Your task to perform on an android device: open app "Google Drive" Image 0: 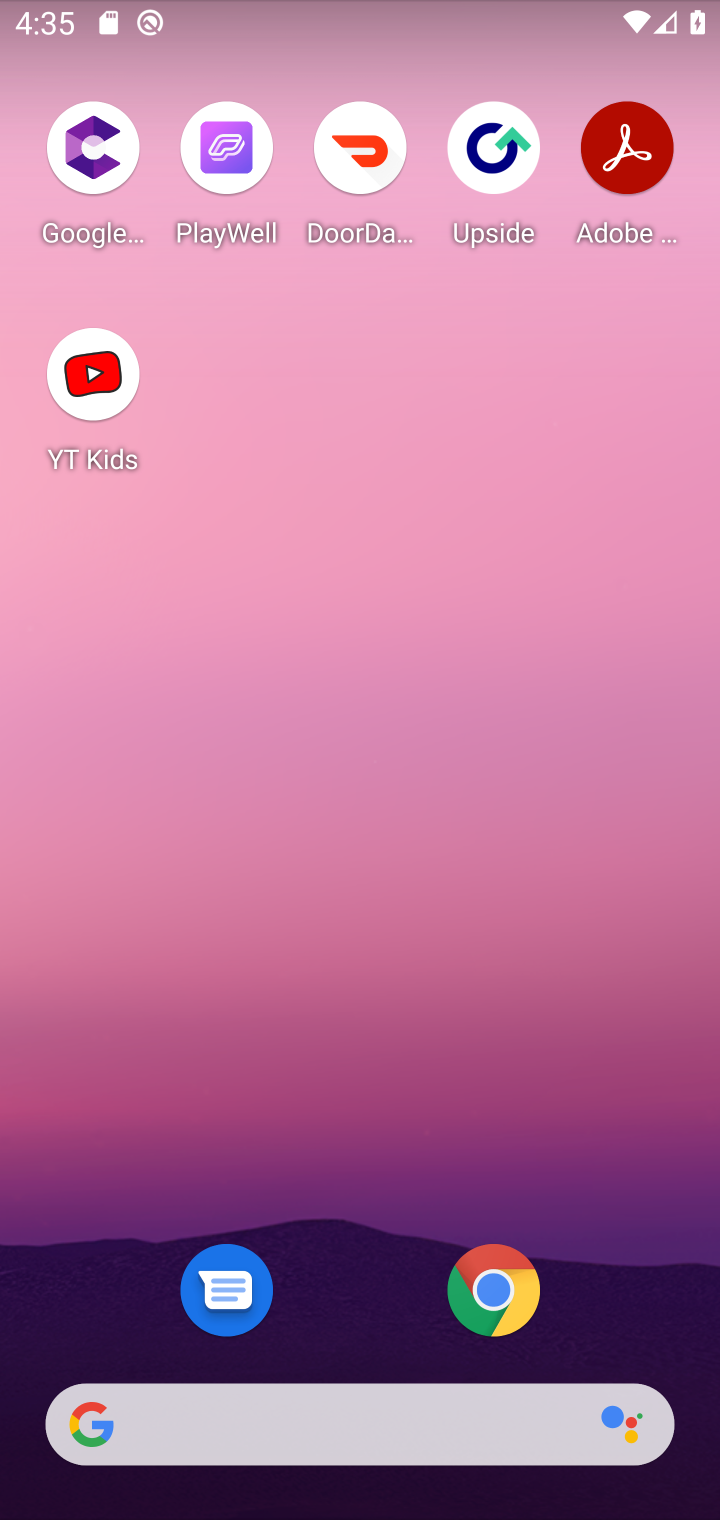
Step 0: drag from (474, 1428) to (678, 117)
Your task to perform on an android device: open app "Google Drive" Image 1: 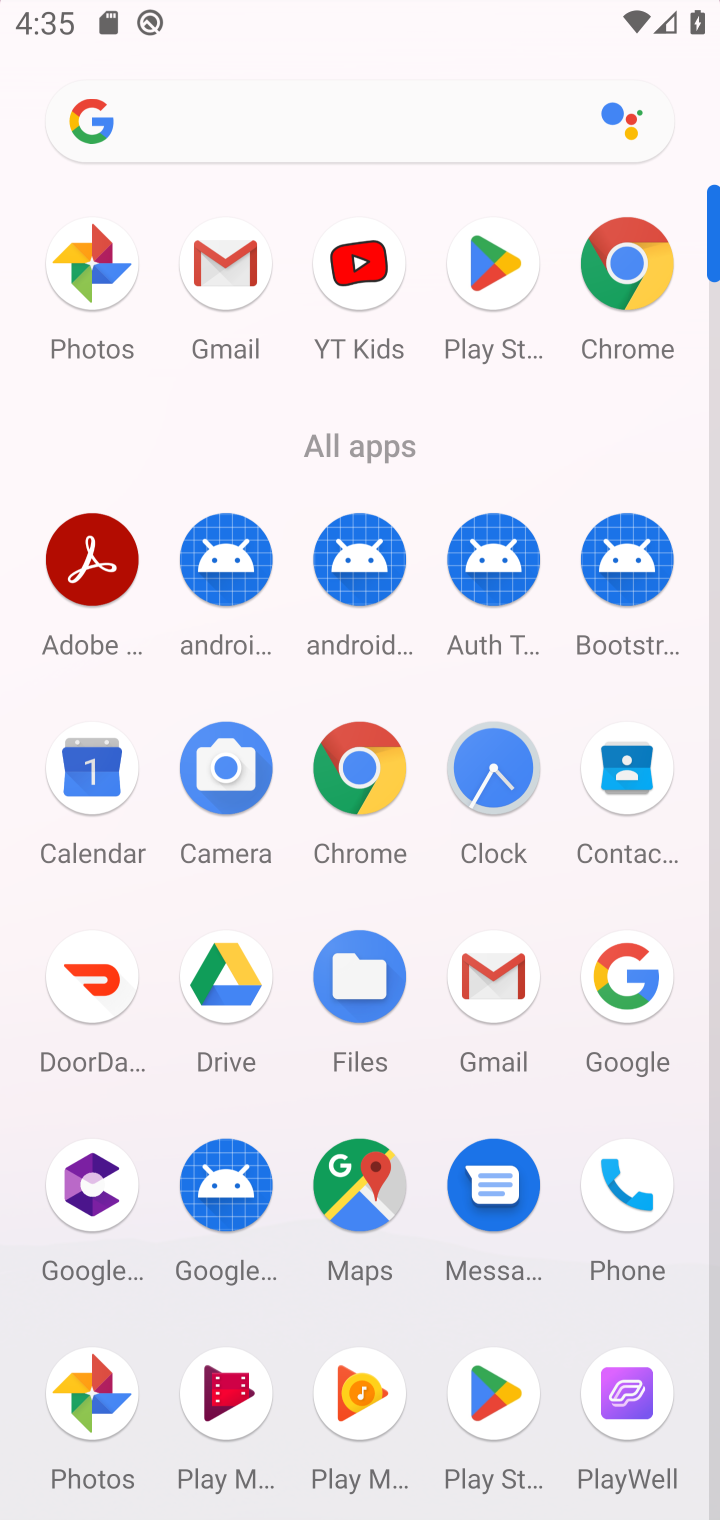
Step 1: click (498, 277)
Your task to perform on an android device: open app "Google Drive" Image 2: 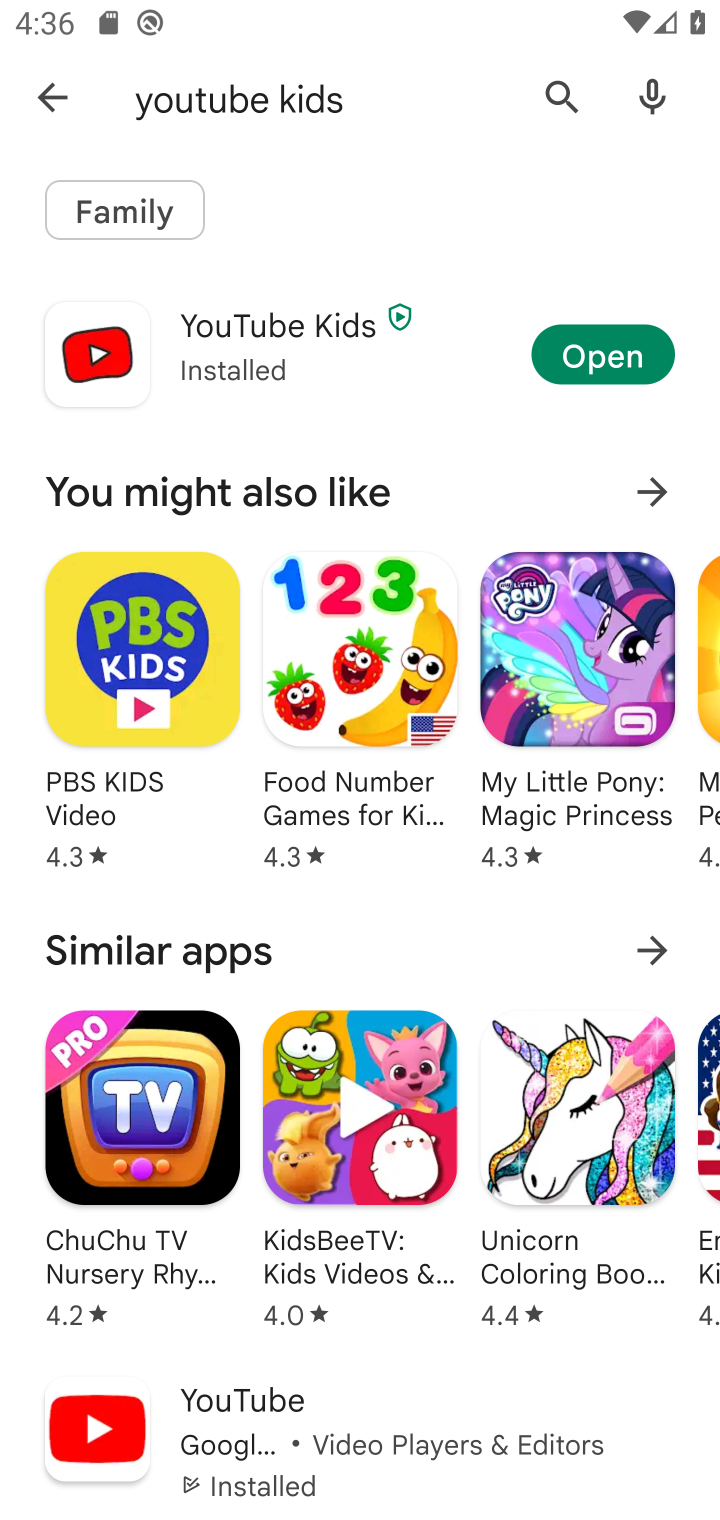
Step 2: click (557, 99)
Your task to perform on an android device: open app "Google Drive" Image 3: 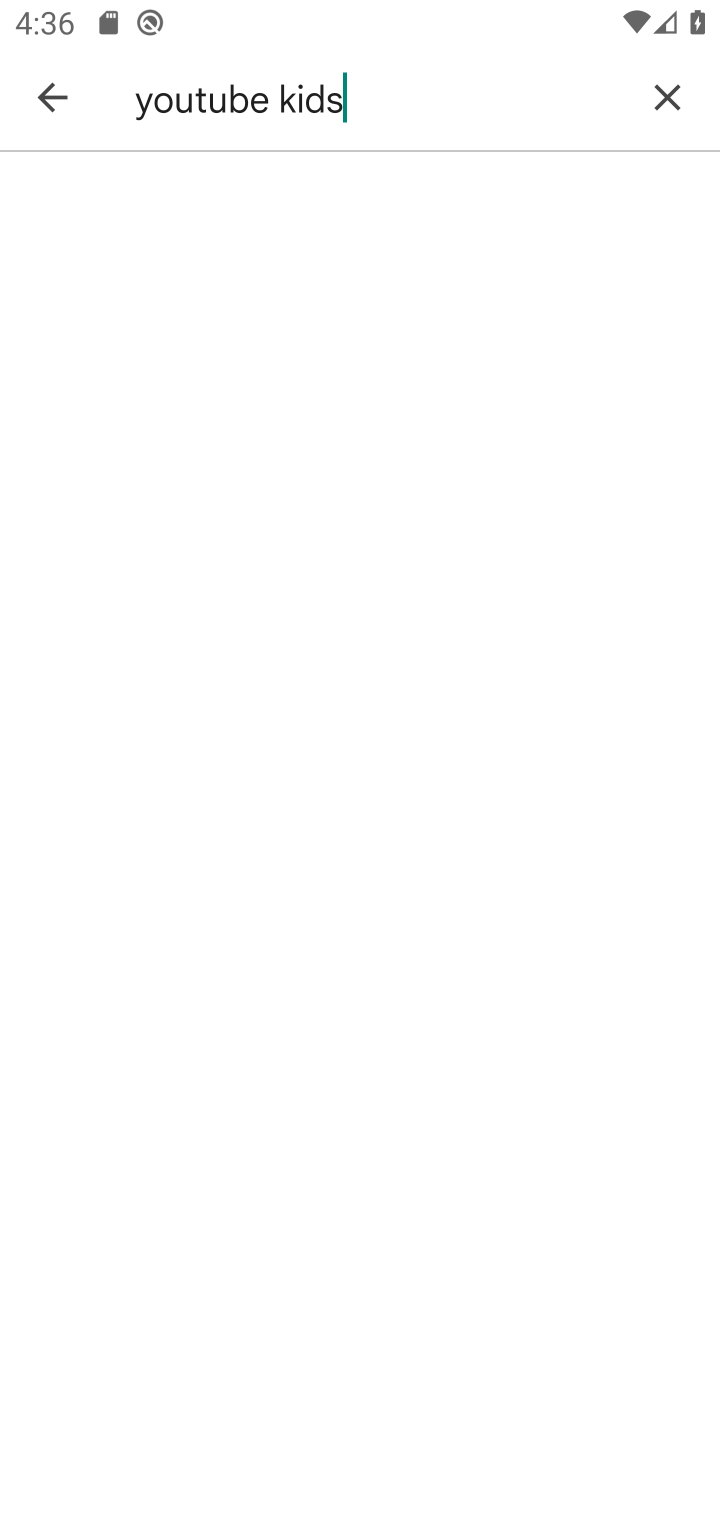
Step 3: click (557, 99)
Your task to perform on an android device: open app "Google Drive" Image 4: 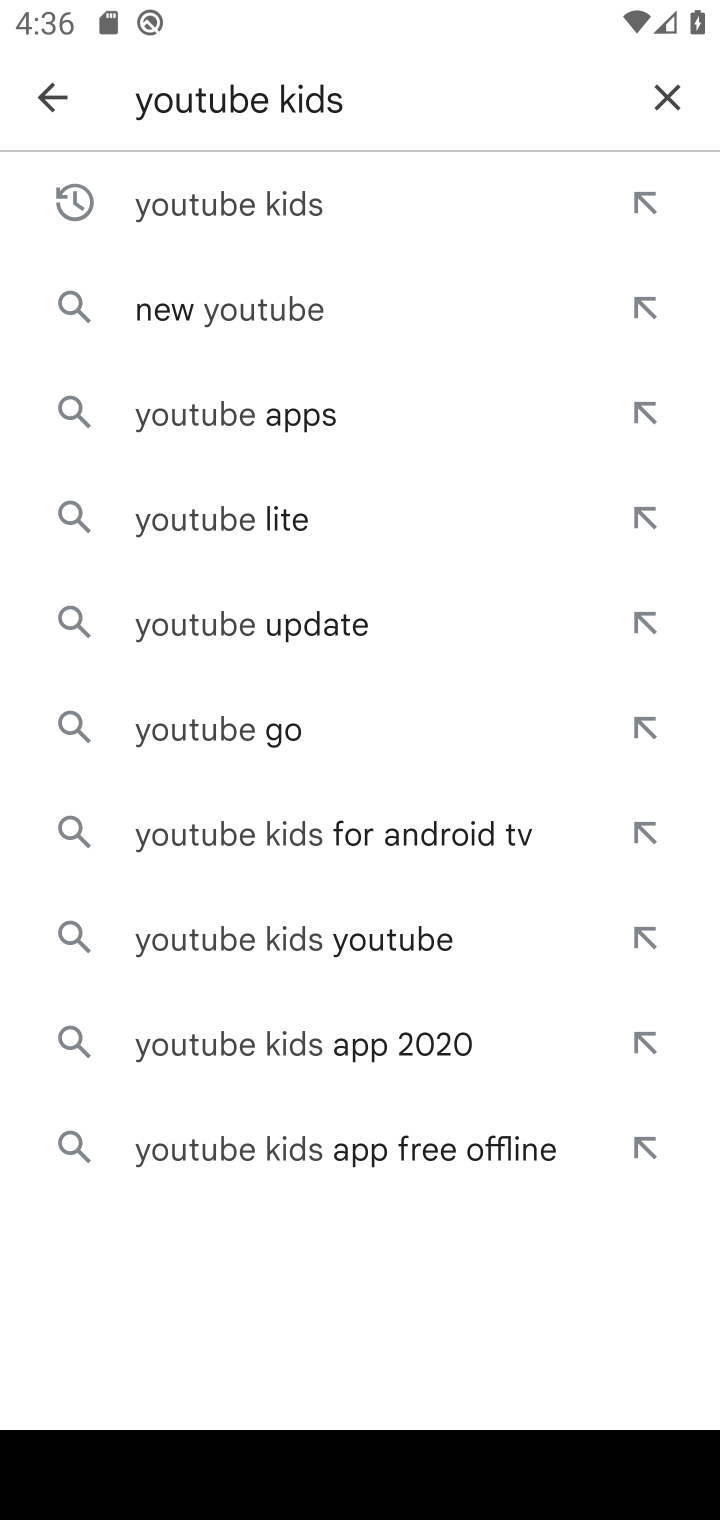
Step 4: click (679, 96)
Your task to perform on an android device: open app "Google Drive" Image 5: 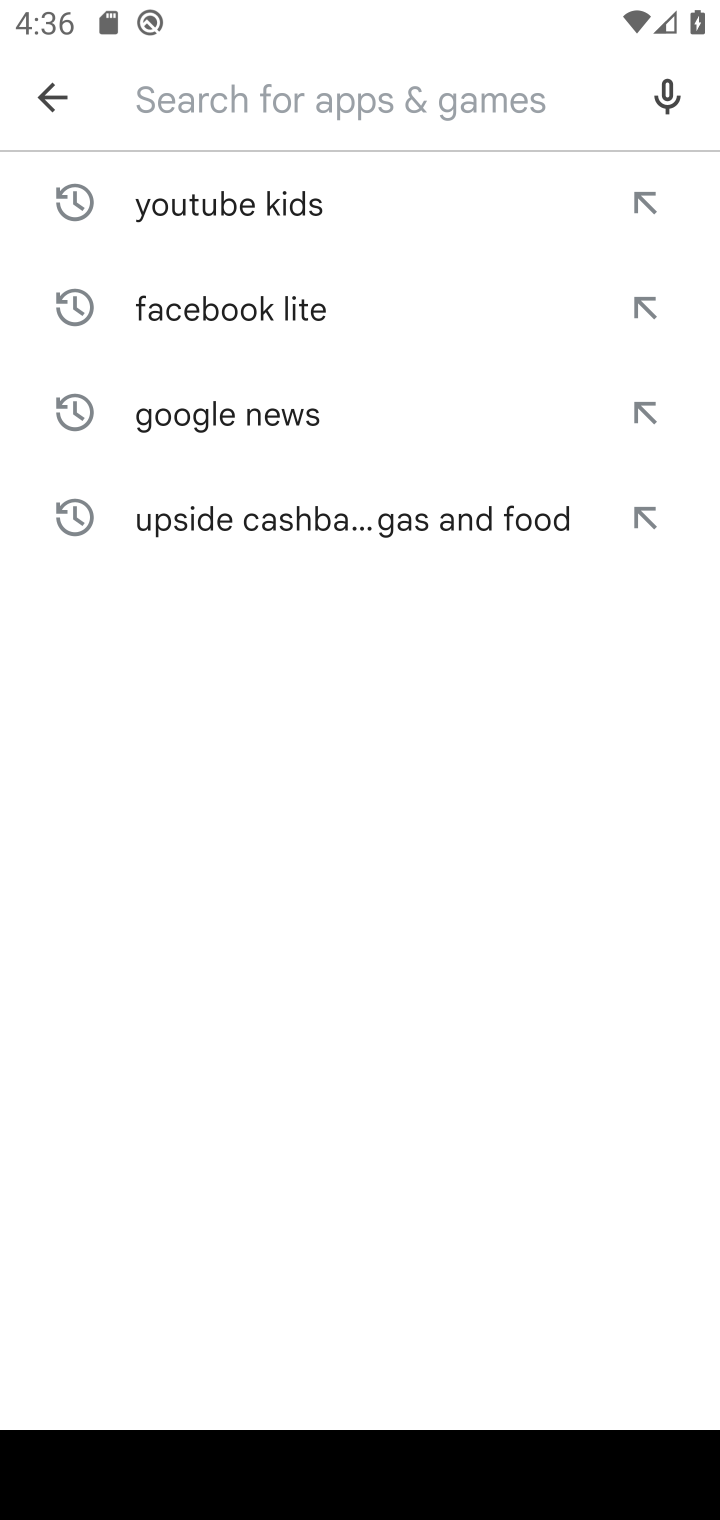
Step 5: type "Google drive"
Your task to perform on an android device: open app "Google Drive" Image 6: 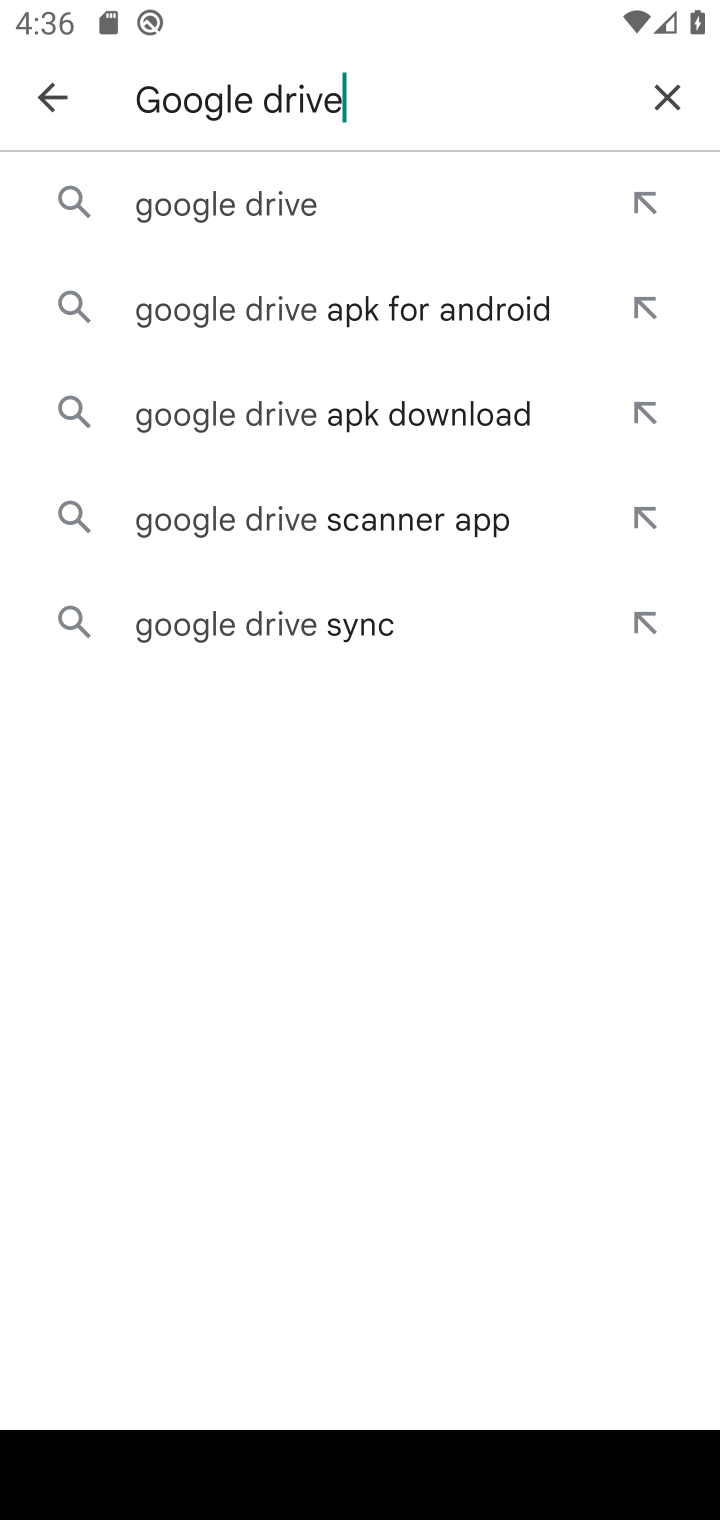
Step 6: click (363, 228)
Your task to perform on an android device: open app "Google Drive" Image 7: 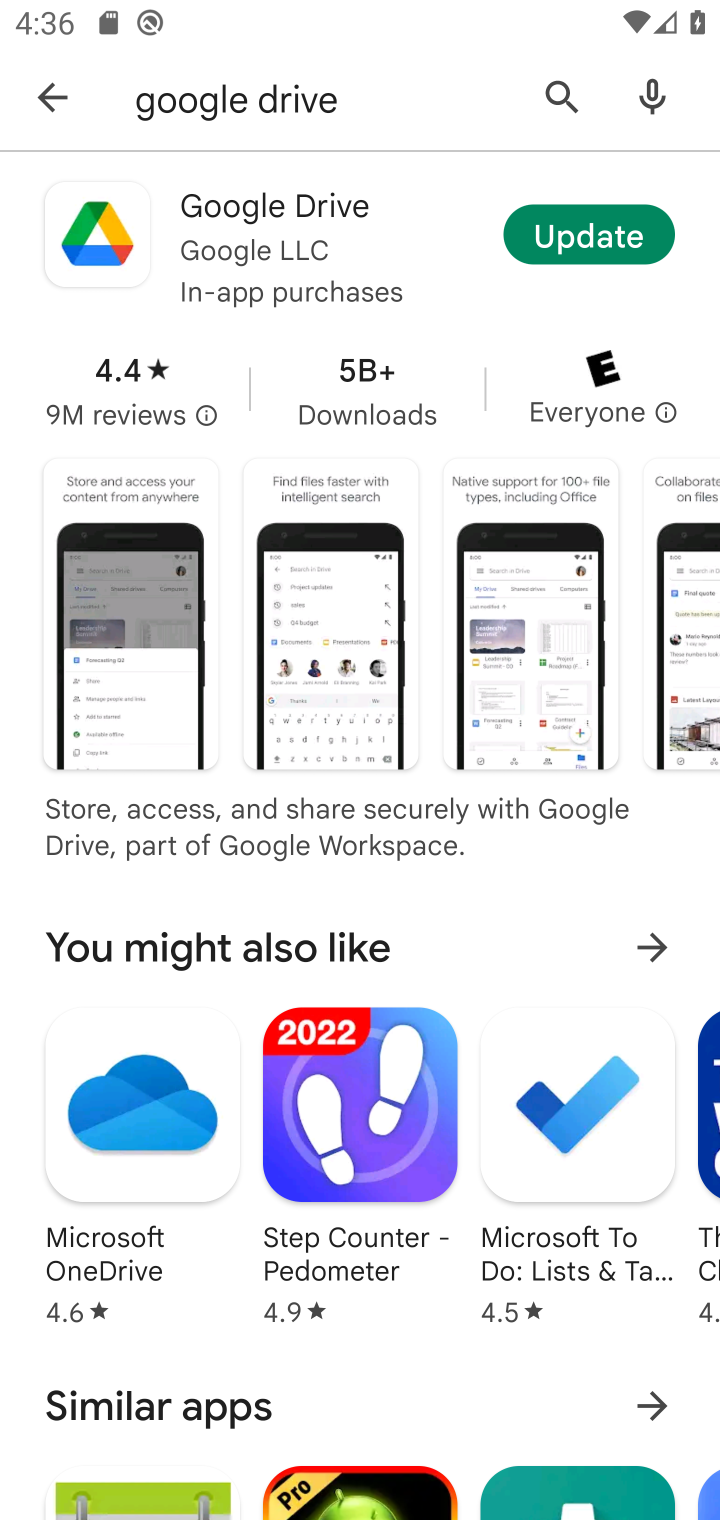
Step 7: task complete